Your task to perform on an android device: turn on bluetooth scan Image 0: 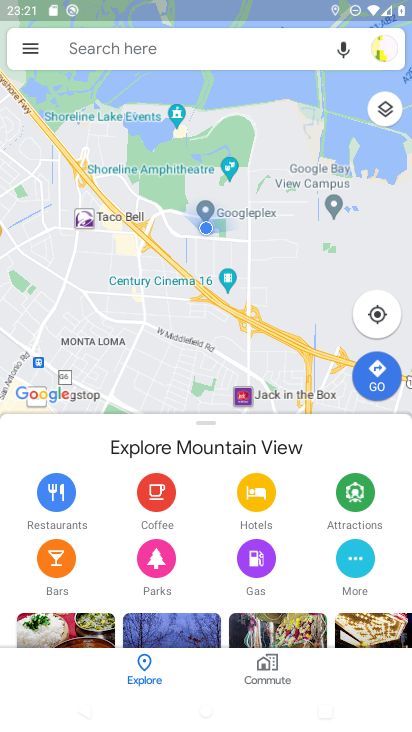
Step 0: press home button
Your task to perform on an android device: turn on bluetooth scan Image 1: 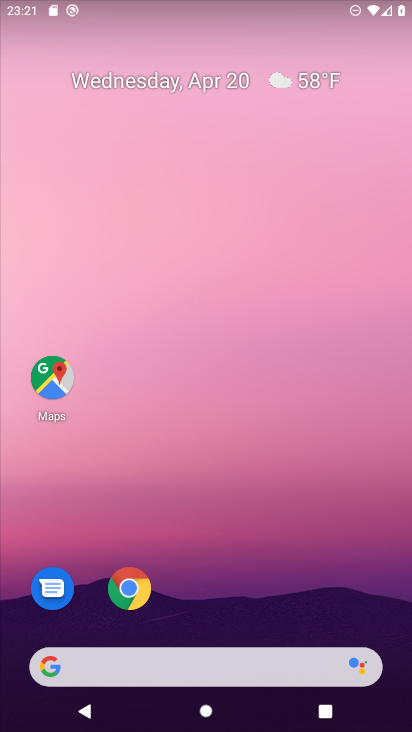
Step 1: drag from (221, 712) to (220, 27)
Your task to perform on an android device: turn on bluetooth scan Image 2: 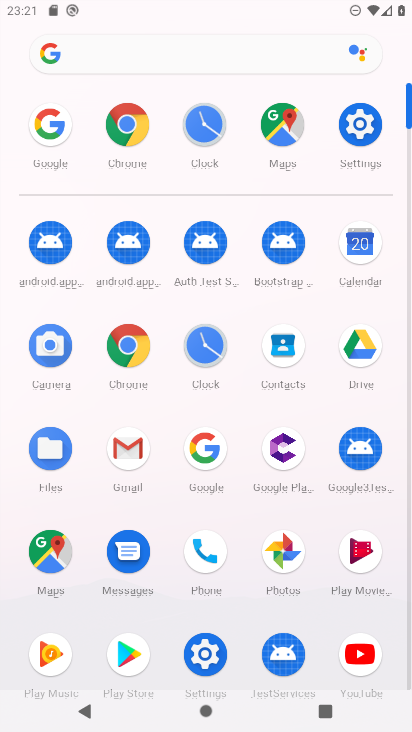
Step 2: click (355, 127)
Your task to perform on an android device: turn on bluetooth scan Image 3: 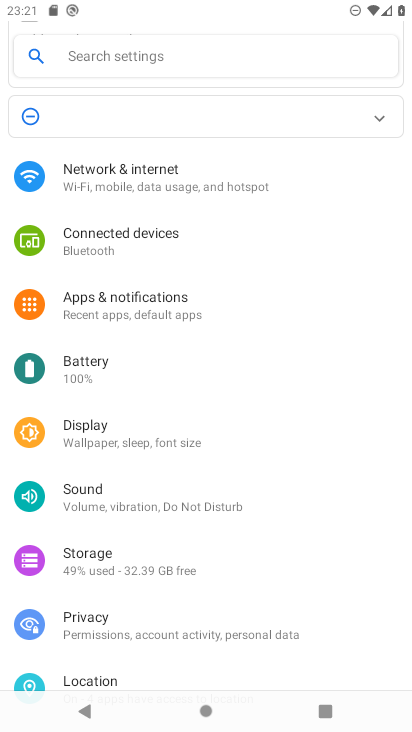
Step 3: drag from (274, 556) to (268, 188)
Your task to perform on an android device: turn on bluetooth scan Image 4: 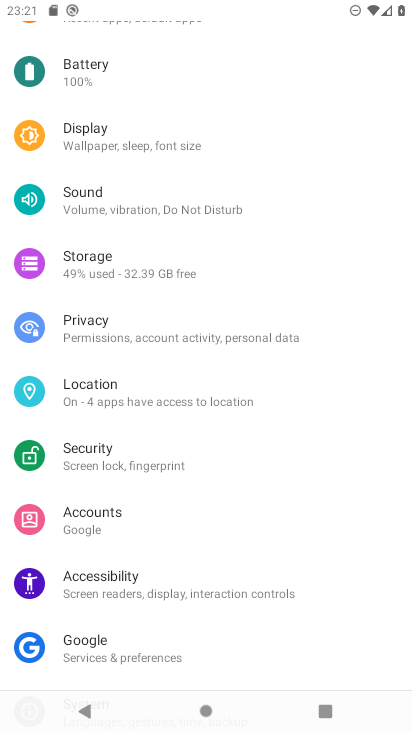
Step 4: click (94, 397)
Your task to perform on an android device: turn on bluetooth scan Image 5: 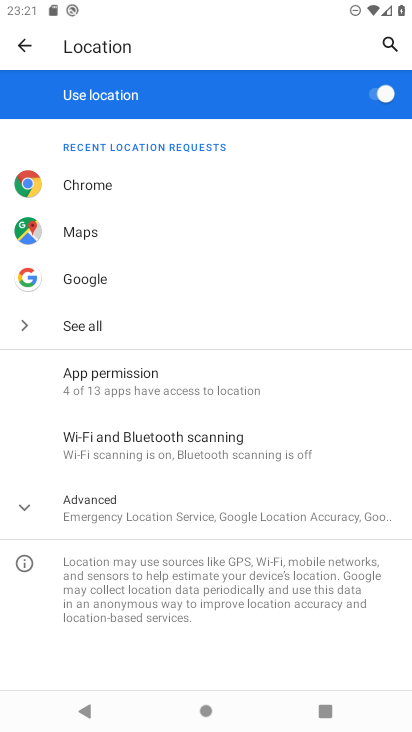
Step 5: click (150, 444)
Your task to perform on an android device: turn on bluetooth scan Image 6: 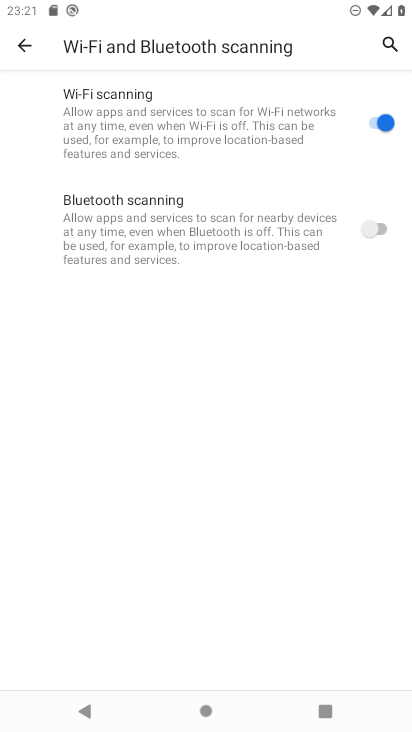
Step 6: click (377, 227)
Your task to perform on an android device: turn on bluetooth scan Image 7: 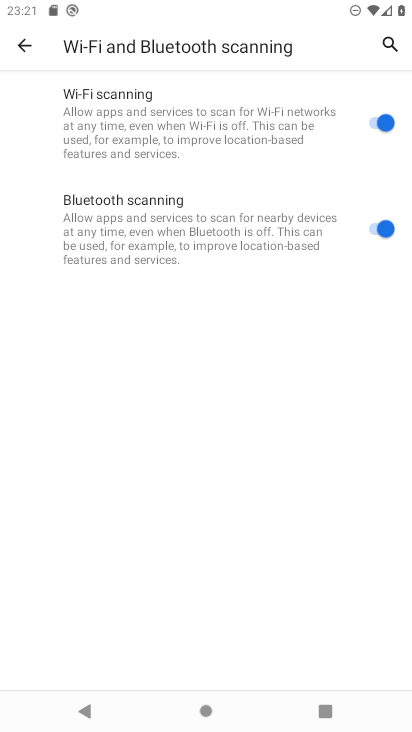
Step 7: task complete